Your task to perform on an android device: What is the recent news? Image 0: 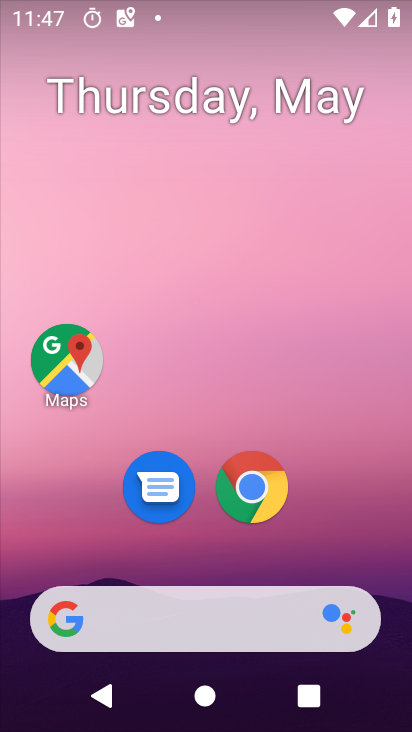
Step 0: click (184, 607)
Your task to perform on an android device: What is the recent news? Image 1: 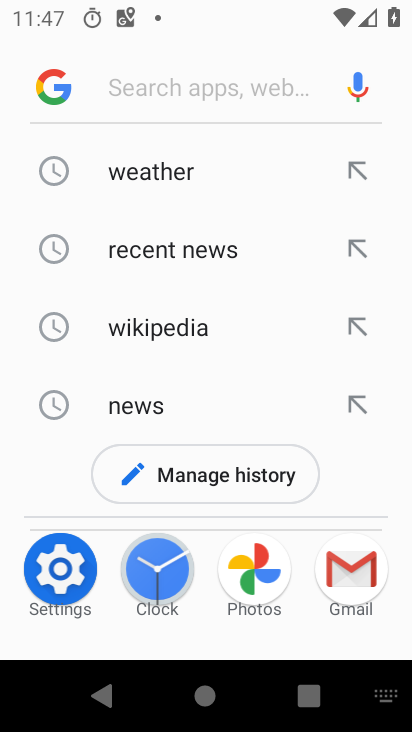
Step 1: click (168, 258)
Your task to perform on an android device: What is the recent news? Image 2: 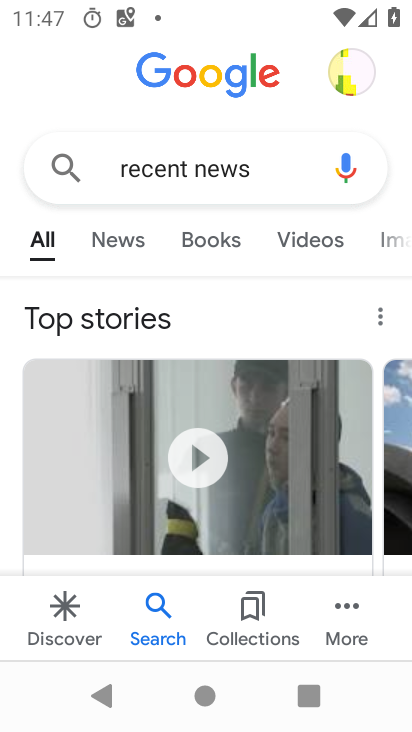
Step 2: click (132, 251)
Your task to perform on an android device: What is the recent news? Image 3: 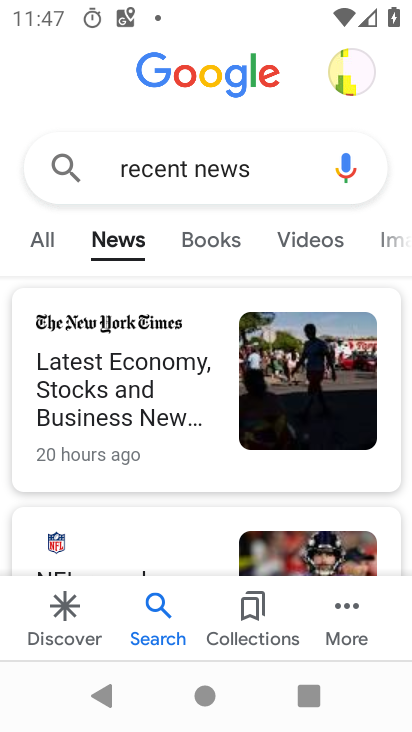
Step 3: task complete